Your task to perform on an android device: turn on location history Image 0: 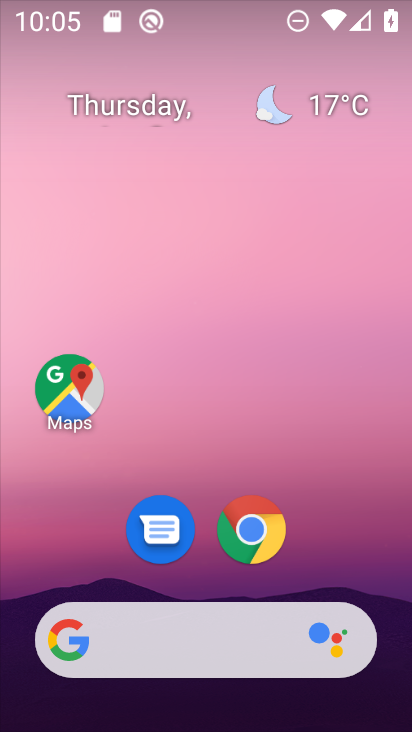
Step 0: drag from (383, 716) to (299, 18)
Your task to perform on an android device: turn on location history Image 1: 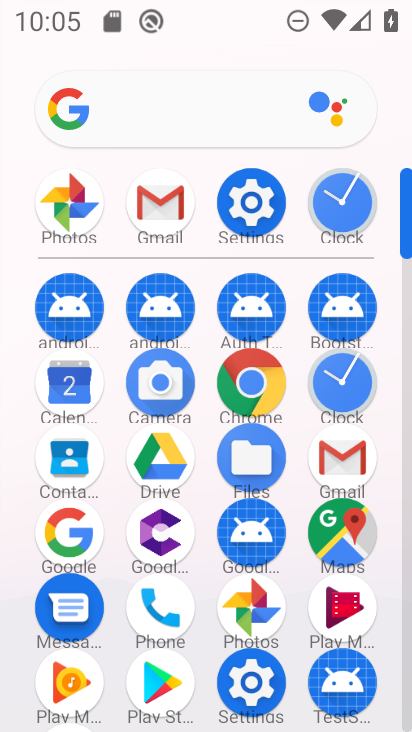
Step 1: click (261, 200)
Your task to perform on an android device: turn on location history Image 2: 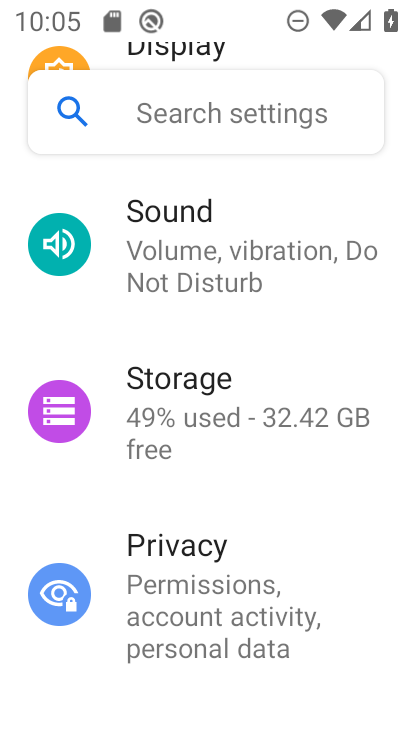
Step 2: drag from (378, 639) to (337, 244)
Your task to perform on an android device: turn on location history Image 3: 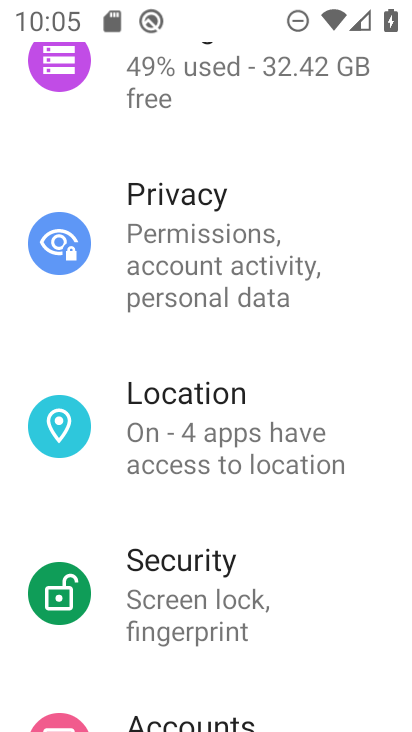
Step 3: drag from (365, 689) to (363, 296)
Your task to perform on an android device: turn on location history Image 4: 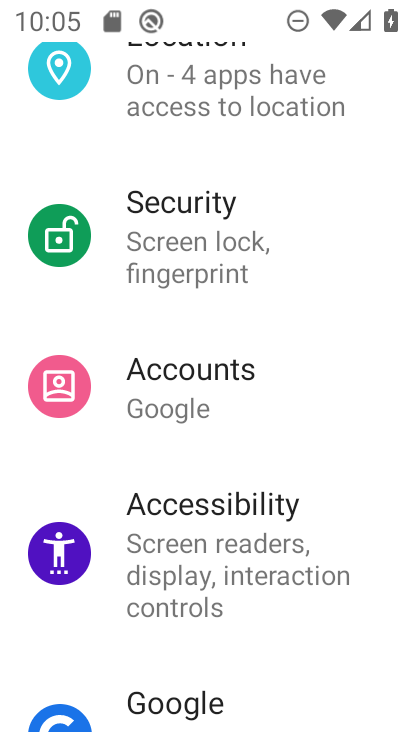
Step 4: drag from (354, 653) to (329, 236)
Your task to perform on an android device: turn on location history Image 5: 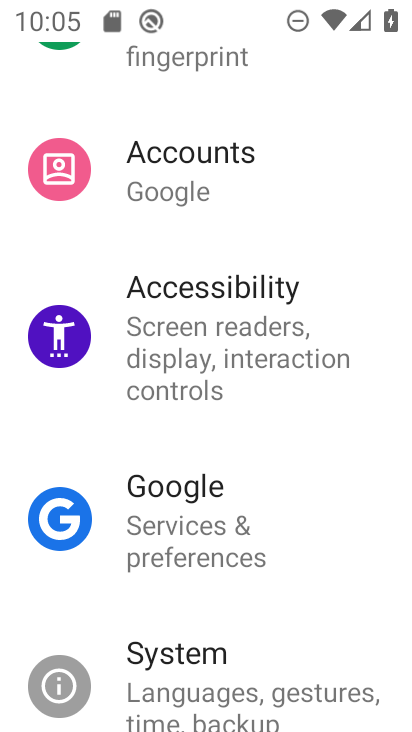
Step 5: drag from (373, 539) to (351, 213)
Your task to perform on an android device: turn on location history Image 6: 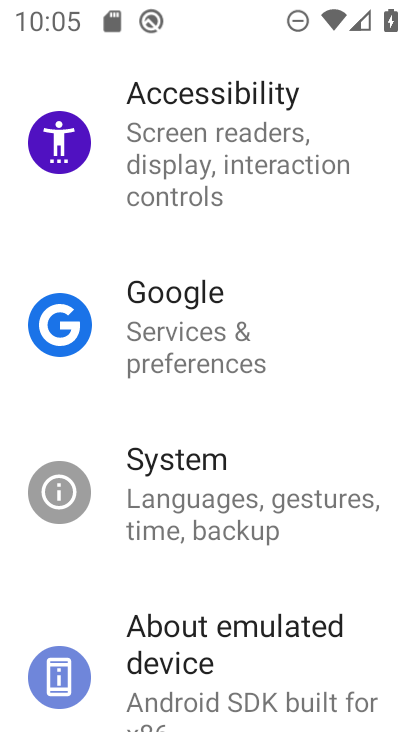
Step 6: drag from (348, 527) to (339, 274)
Your task to perform on an android device: turn on location history Image 7: 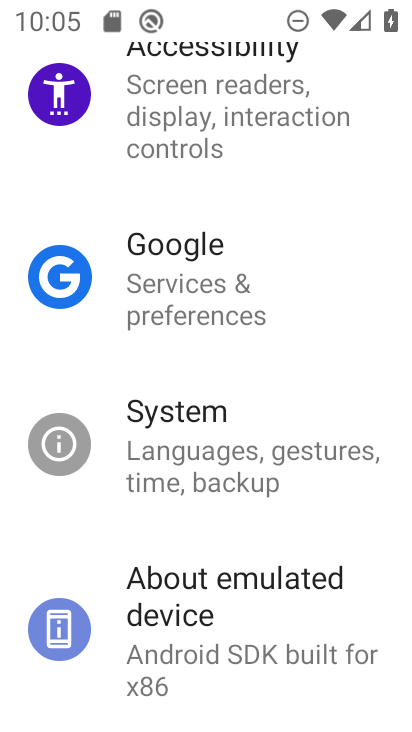
Step 7: drag from (286, 190) to (317, 616)
Your task to perform on an android device: turn on location history Image 8: 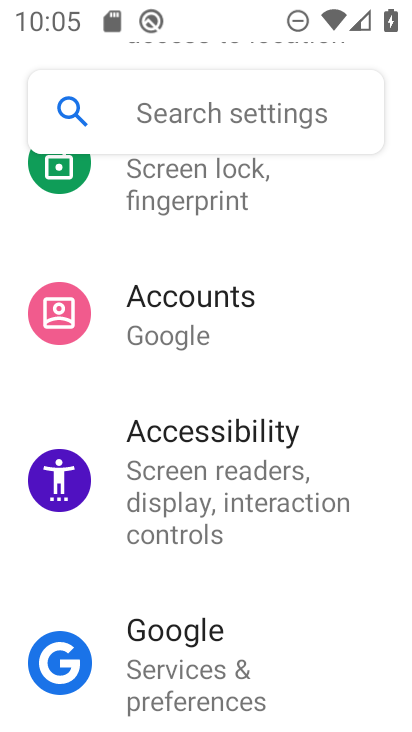
Step 8: drag from (316, 238) to (319, 634)
Your task to perform on an android device: turn on location history Image 9: 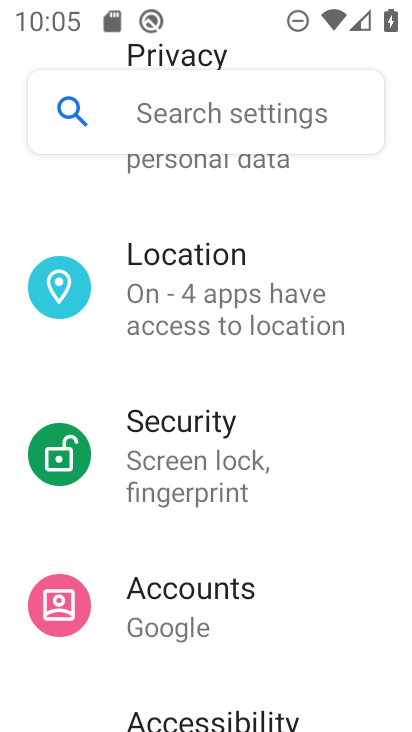
Step 9: click (192, 283)
Your task to perform on an android device: turn on location history Image 10: 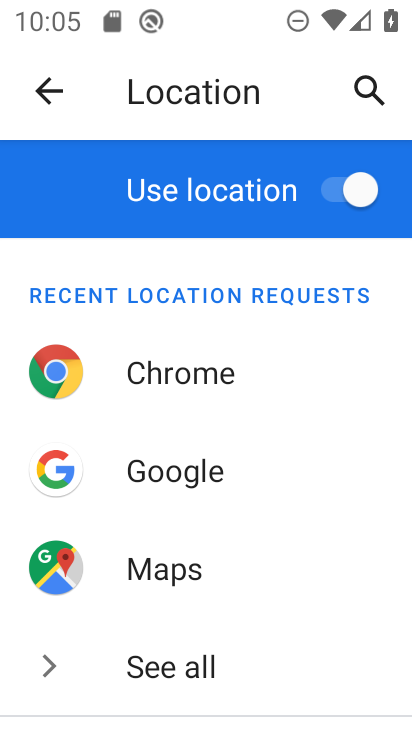
Step 10: drag from (317, 671) to (286, 186)
Your task to perform on an android device: turn on location history Image 11: 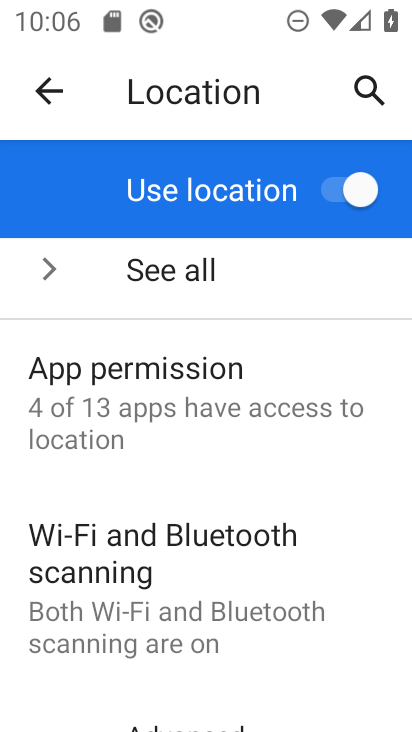
Step 11: drag from (339, 671) to (320, 278)
Your task to perform on an android device: turn on location history Image 12: 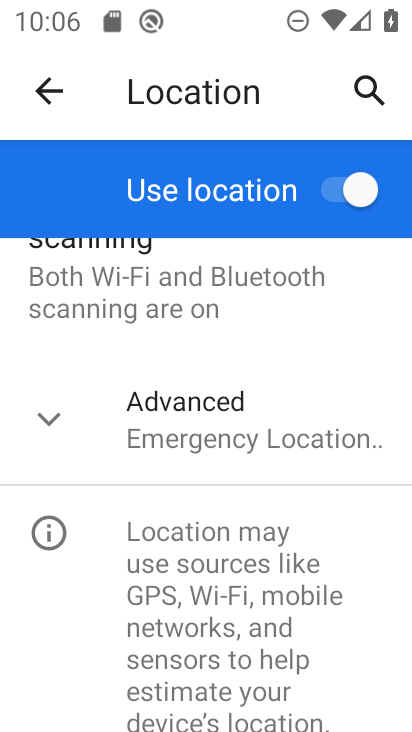
Step 12: drag from (357, 686) to (339, 326)
Your task to perform on an android device: turn on location history Image 13: 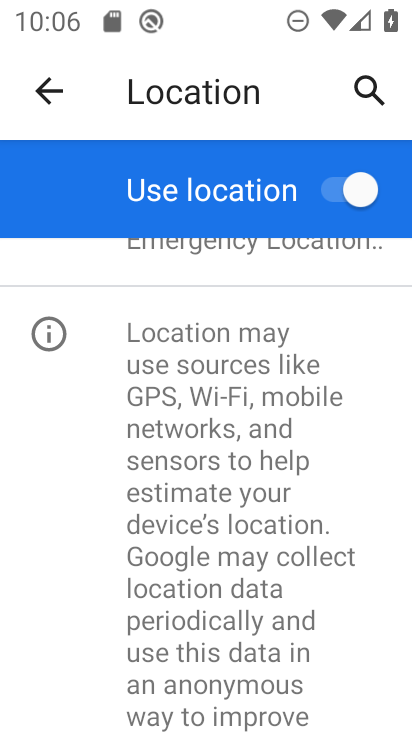
Step 13: drag from (101, 369) to (111, 604)
Your task to perform on an android device: turn on location history Image 14: 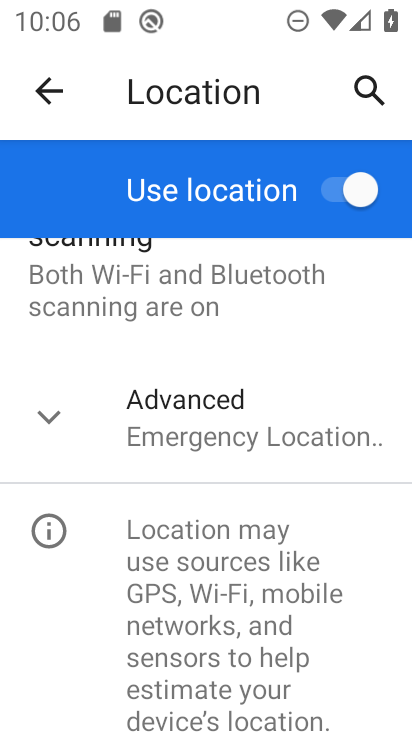
Step 14: click (68, 411)
Your task to perform on an android device: turn on location history Image 15: 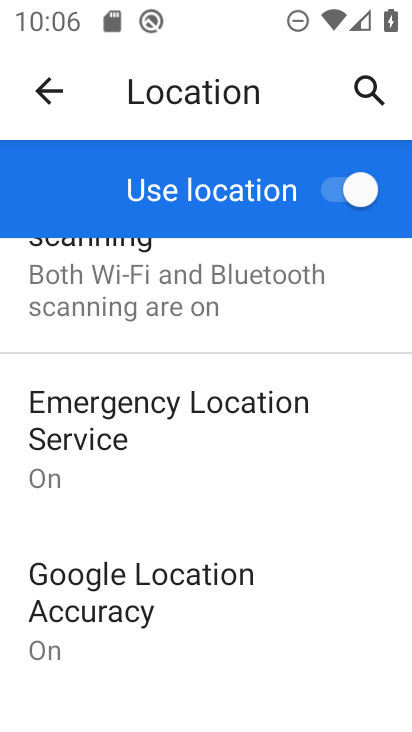
Step 15: drag from (300, 674) to (297, 398)
Your task to perform on an android device: turn on location history Image 16: 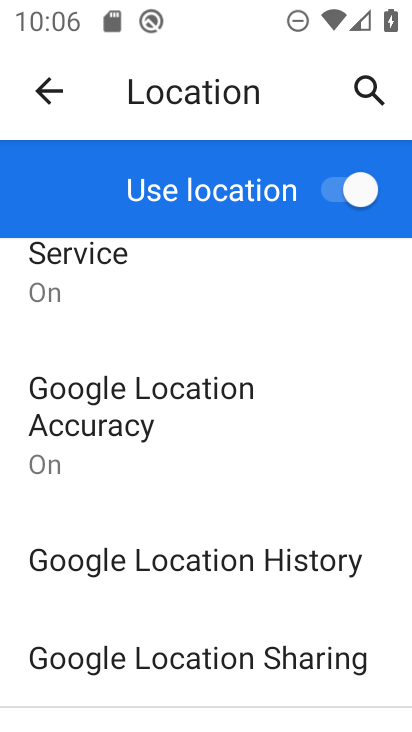
Step 16: click (208, 562)
Your task to perform on an android device: turn on location history Image 17: 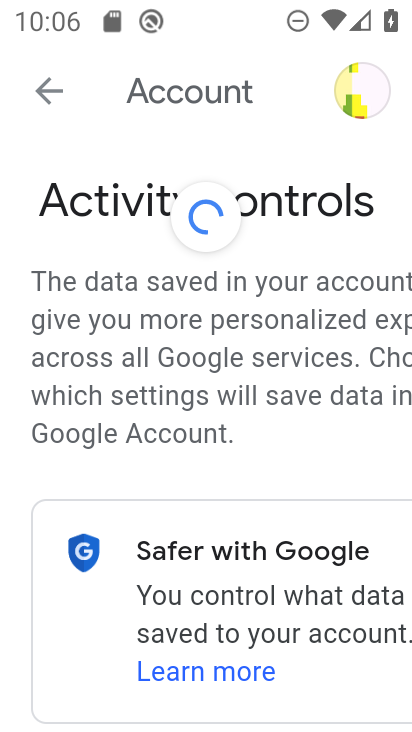
Step 17: drag from (292, 653) to (278, 218)
Your task to perform on an android device: turn on location history Image 18: 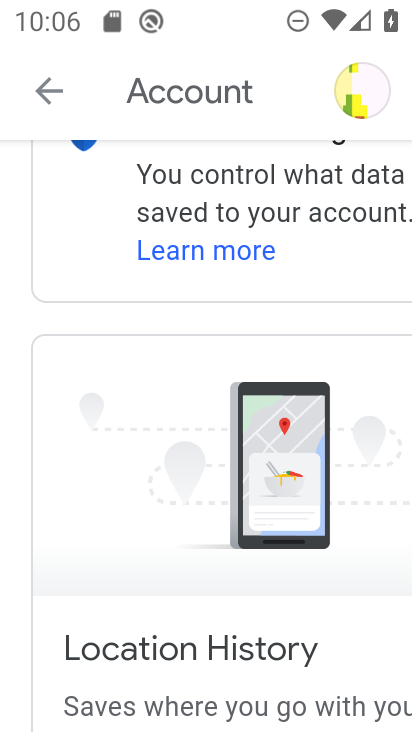
Step 18: drag from (267, 612) to (255, 166)
Your task to perform on an android device: turn on location history Image 19: 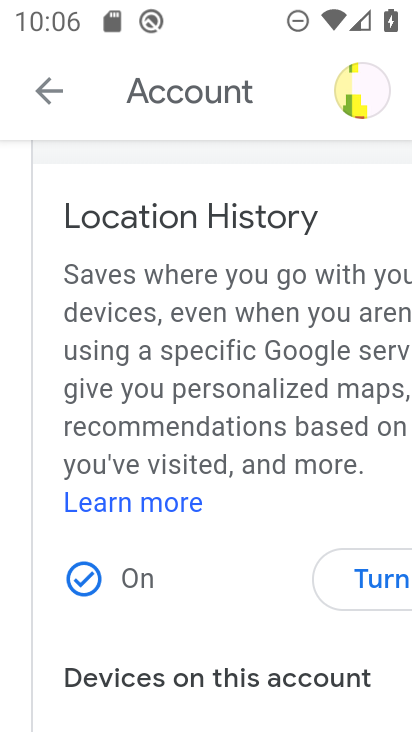
Step 19: click (365, 581)
Your task to perform on an android device: turn on location history Image 20: 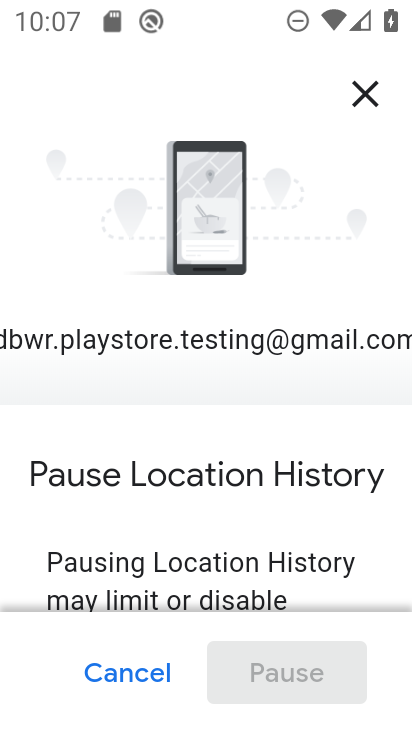
Step 20: drag from (203, 585) to (213, 289)
Your task to perform on an android device: turn on location history Image 21: 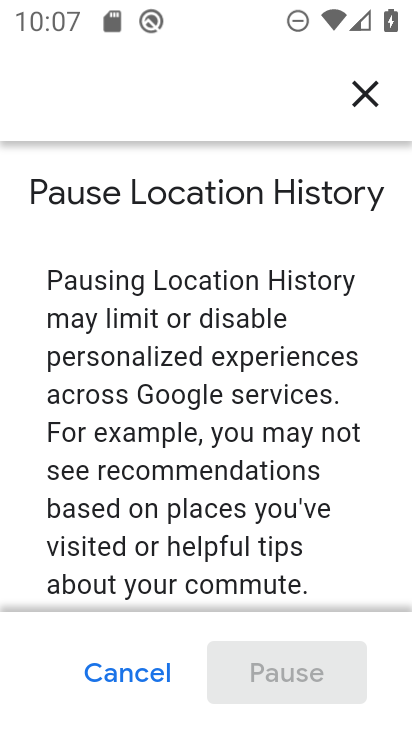
Step 21: drag from (254, 526) to (271, 194)
Your task to perform on an android device: turn on location history Image 22: 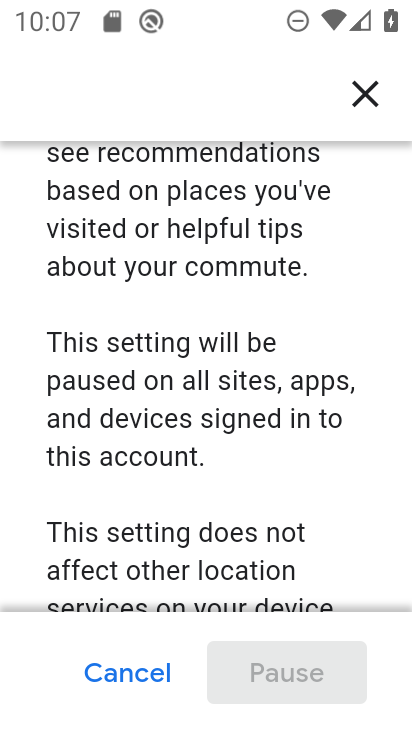
Step 22: drag from (274, 543) to (280, 164)
Your task to perform on an android device: turn on location history Image 23: 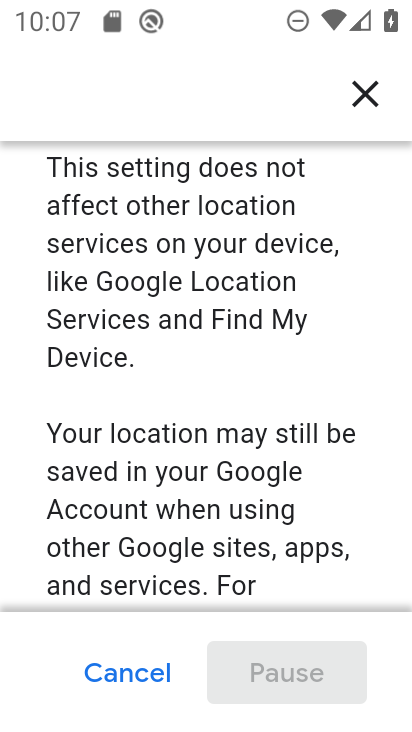
Step 23: drag from (272, 475) to (269, 257)
Your task to perform on an android device: turn on location history Image 24: 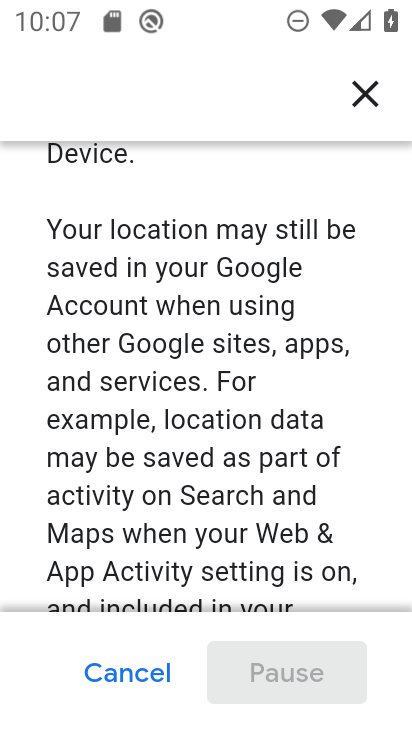
Step 24: drag from (270, 575) to (251, 208)
Your task to perform on an android device: turn on location history Image 25: 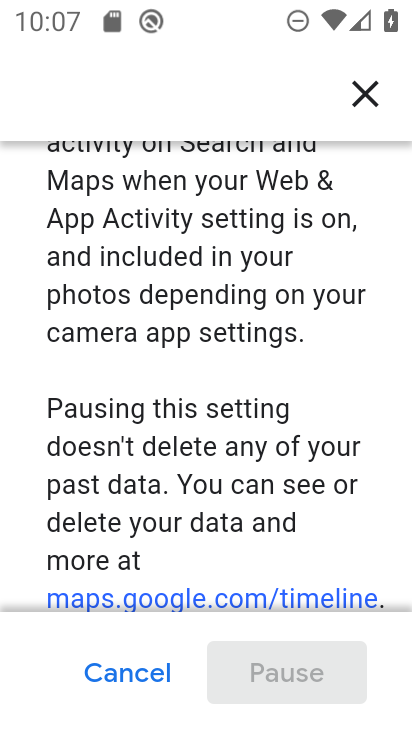
Step 25: drag from (267, 576) to (261, 105)
Your task to perform on an android device: turn on location history Image 26: 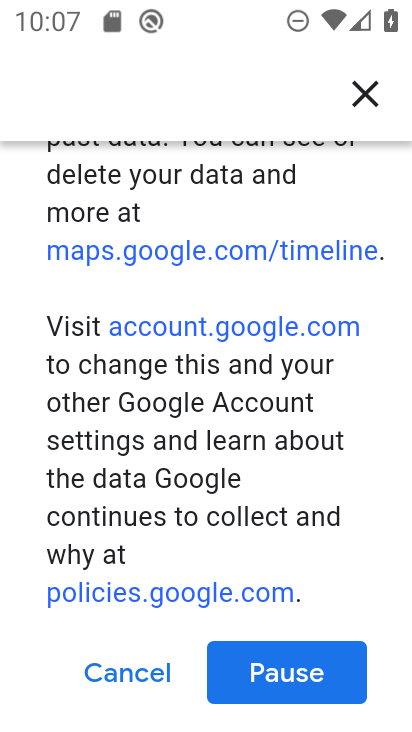
Step 26: click (282, 685)
Your task to perform on an android device: turn on location history Image 27: 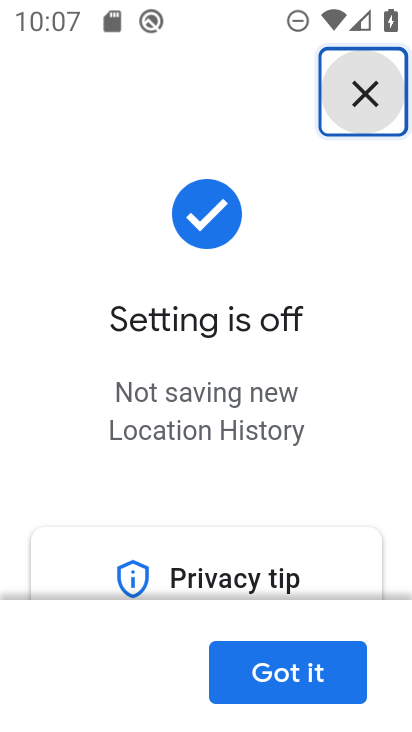
Step 27: click (308, 685)
Your task to perform on an android device: turn on location history Image 28: 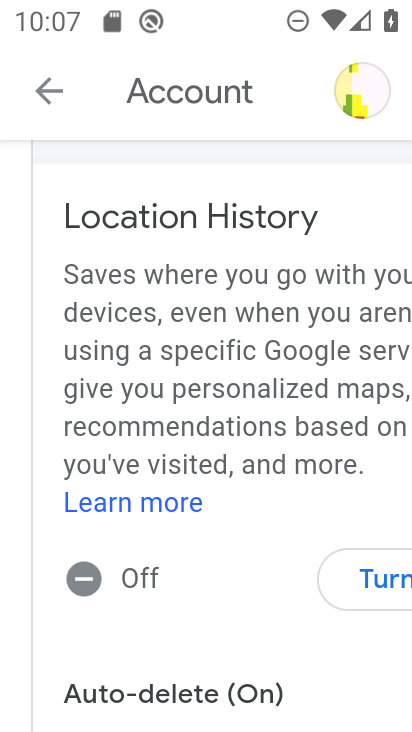
Step 28: click (306, 684)
Your task to perform on an android device: turn on location history Image 29: 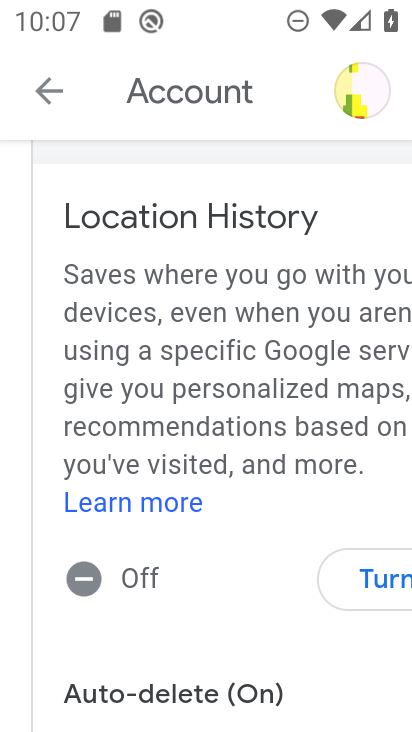
Step 29: click (373, 582)
Your task to perform on an android device: turn on location history Image 30: 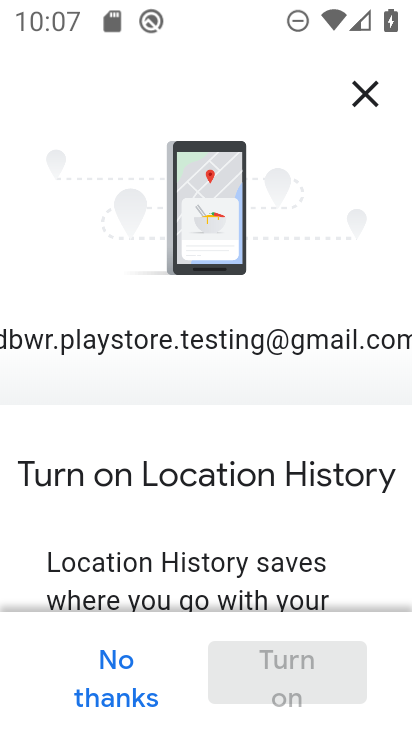
Step 30: drag from (248, 567) to (249, 196)
Your task to perform on an android device: turn on location history Image 31: 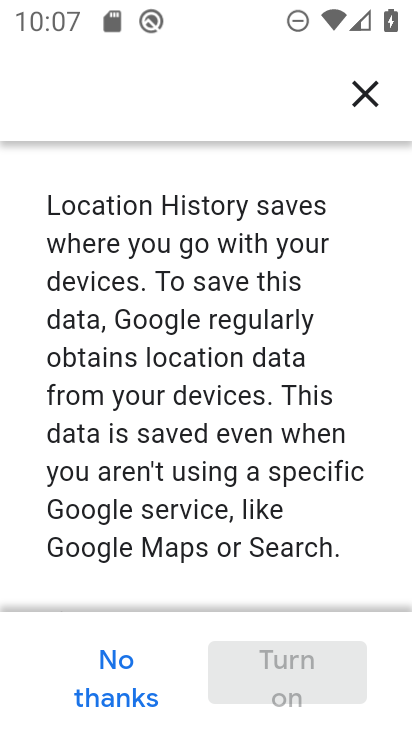
Step 31: drag from (270, 545) to (275, 246)
Your task to perform on an android device: turn on location history Image 32: 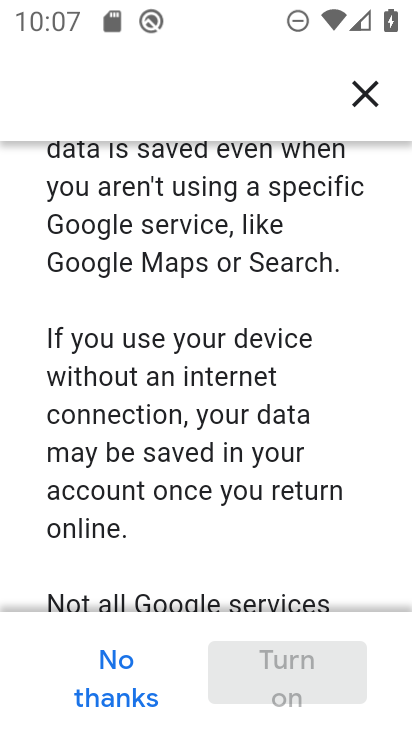
Step 32: drag from (282, 554) to (265, 279)
Your task to perform on an android device: turn on location history Image 33: 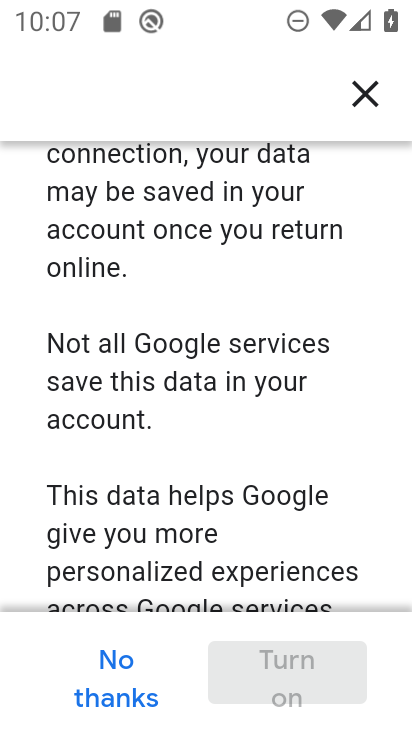
Step 33: drag from (252, 569) to (249, 230)
Your task to perform on an android device: turn on location history Image 34: 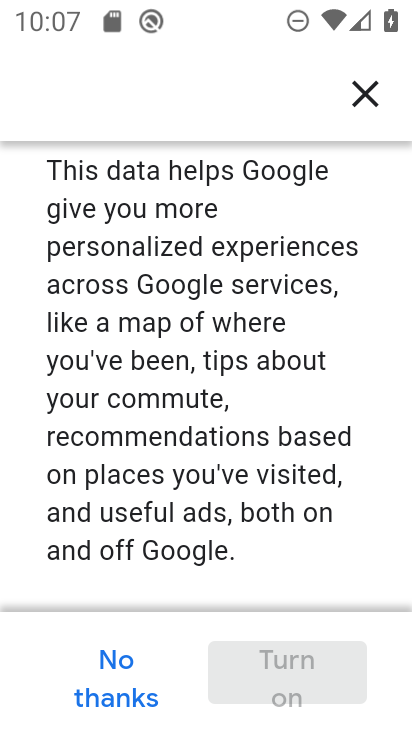
Step 34: drag from (279, 585) to (261, 242)
Your task to perform on an android device: turn on location history Image 35: 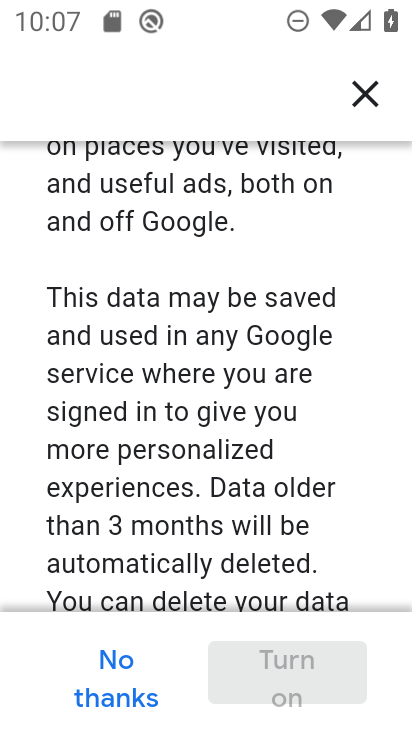
Step 35: drag from (288, 580) to (262, 237)
Your task to perform on an android device: turn on location history Image 36: 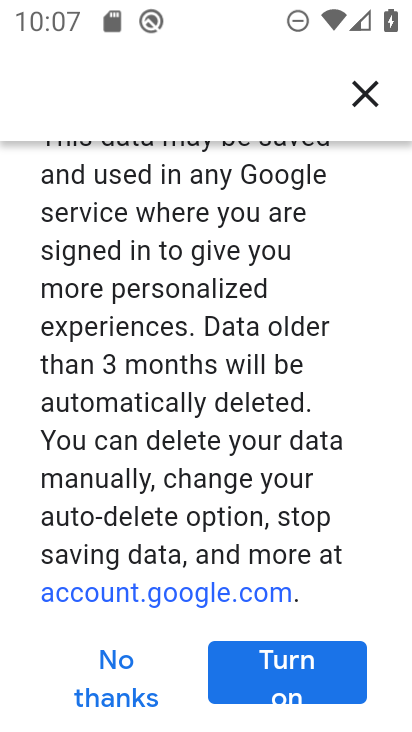
Step 36: click (283, 680)
Your task to perform on an android device: turn on location history Image 37: 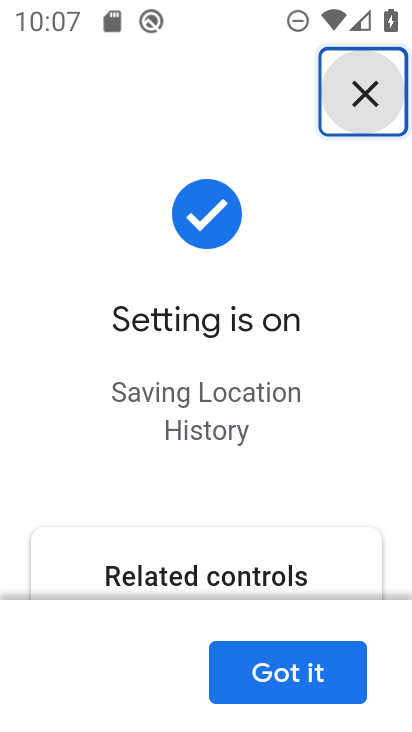
Step 37: click (281, 666)
Your task to perform on an android device: turn on location history Image 38: 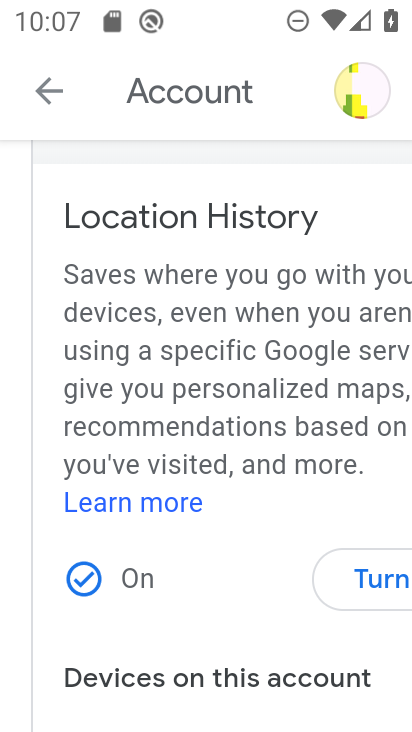
Step 38: task complete